Your task to perform on an android device: open a bookmark in the chrome app Image 0: 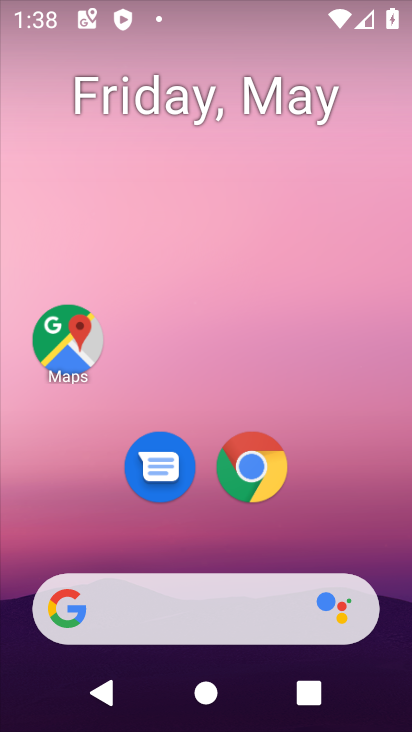
Step 0: drag from (330, 527) to (332, 45)
Your task to perform on an android device: open a bookmark in the chrome app Image 1: 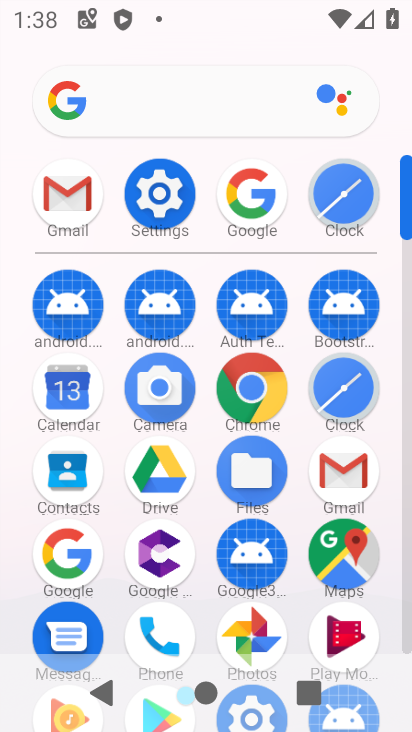
Step 1: click (260, 384)
Your task to perform on an android device: open a bookmark in the chrome app Image 2: 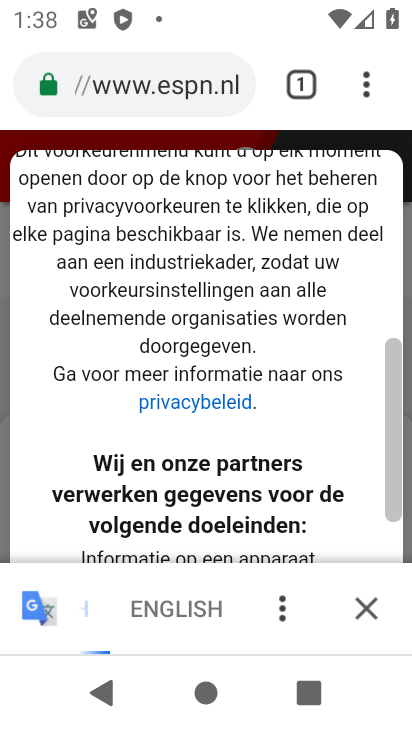
Step 2: task complete